Your task to perform on an android device: Search for Italian restaurants on Maps Image 0: 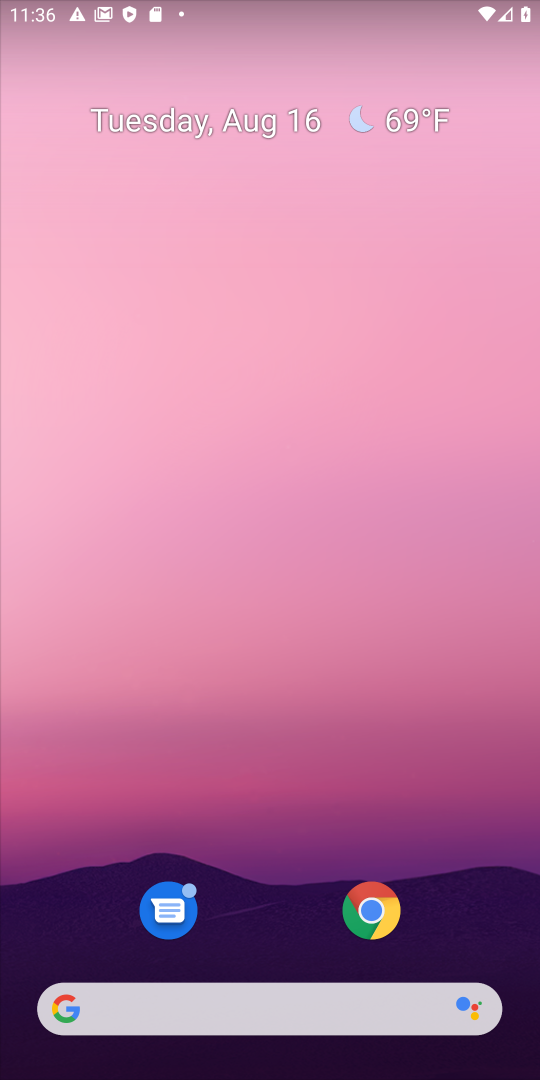
Step 0: drag from (271, 920) to (233, 187)
Your task to perform on an android device: Search for Italian restaurants on Maps Image 1: 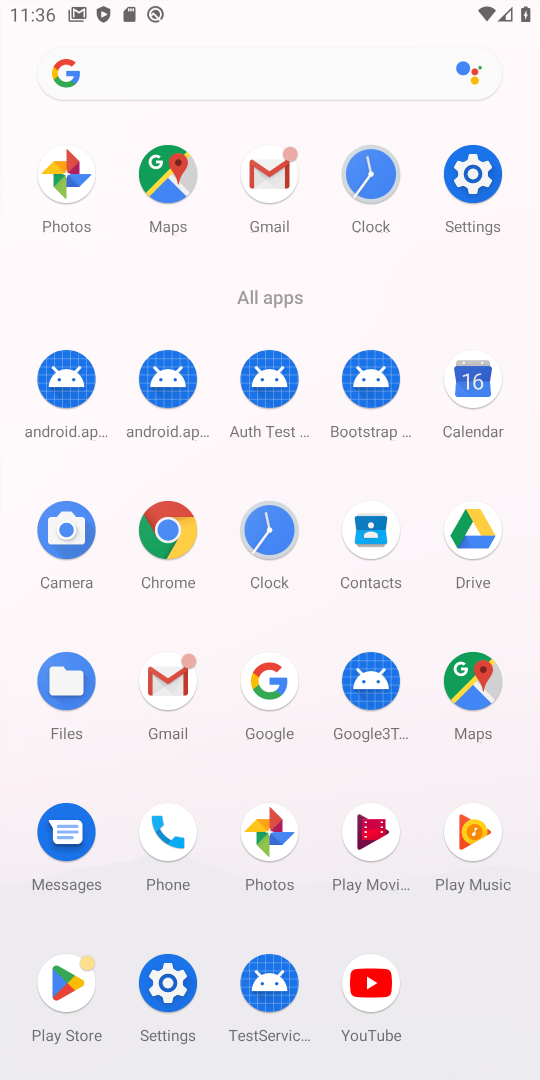
Step 1: click (481, 685)
Your task to perform on an android device: Search for Italian restaurants on Maps Image 2: 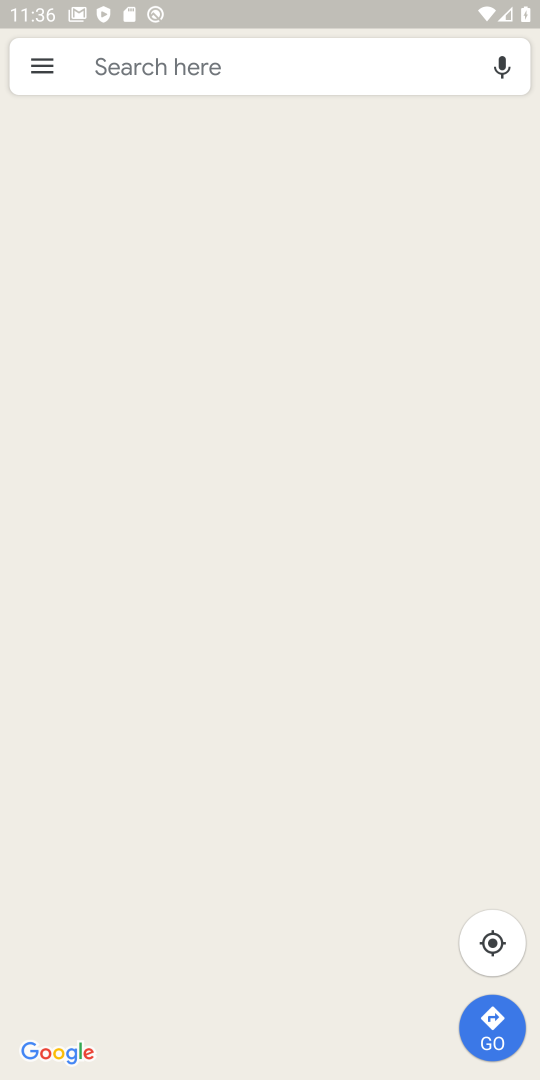
Step 2: click (302, 62)
Your task to perform on an android device: Search for Italian restaurants on Maps Image 3: 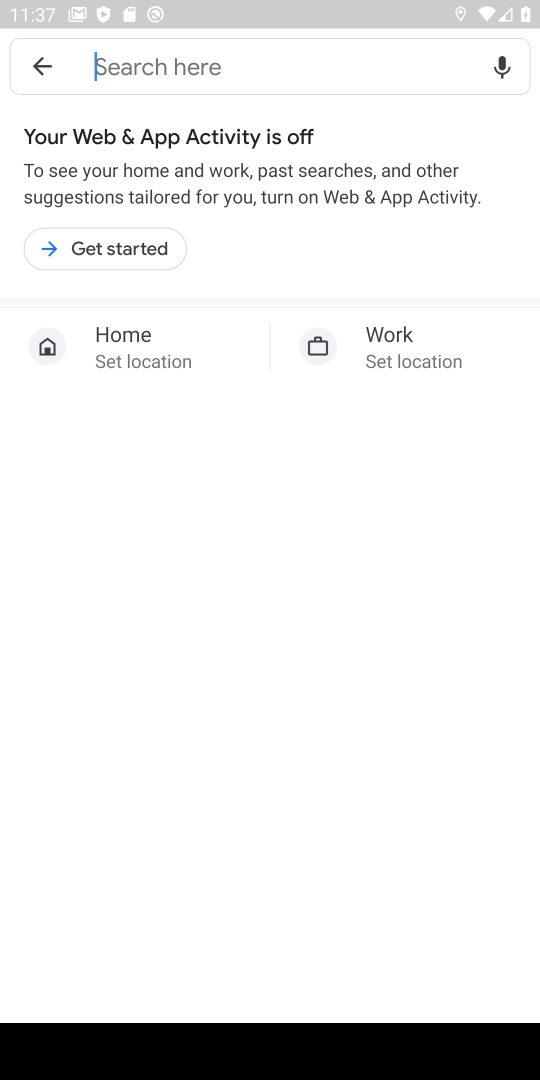
Step 3: type "Italian restaurants"
Your task to perform on an android device: Search for Italian restaurants on Maps Image 4: 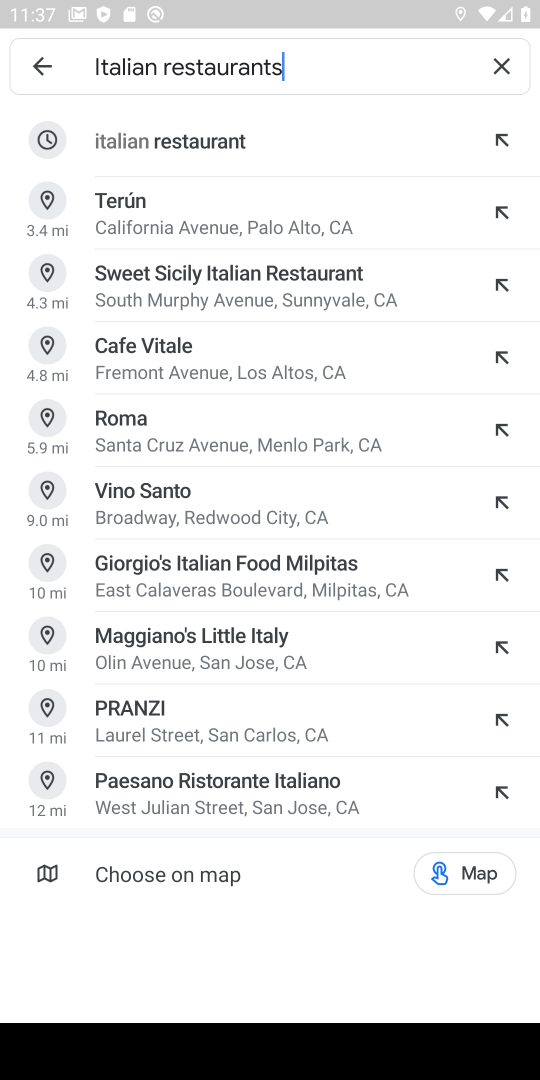
Step 4: press enter
Your task to perform on an android device: Search for Italian restaurants on Maps Image 5: 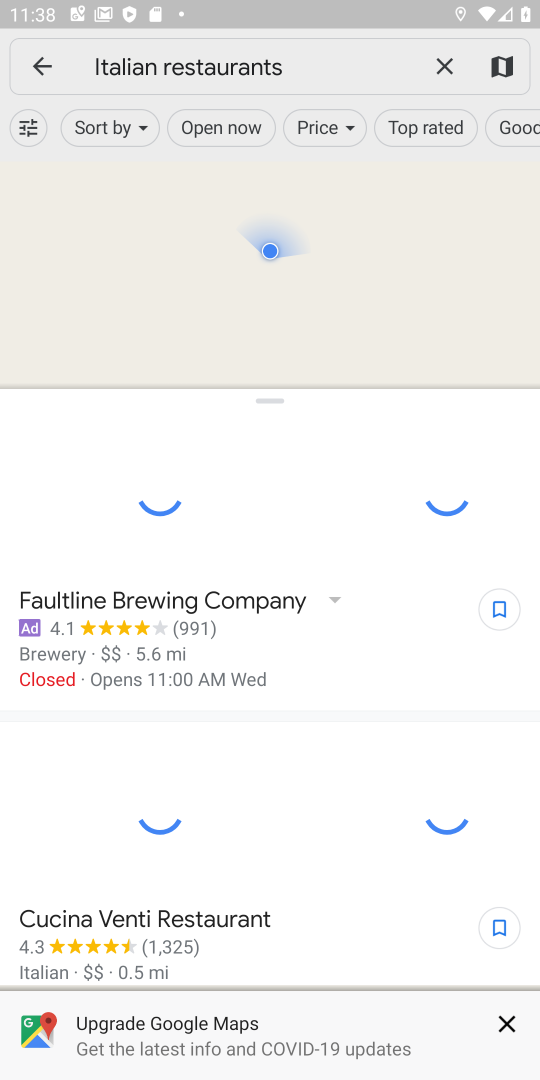
Step 5: task complete